Your task to perform on an android device: Do I have any events this weekend? Image 0: 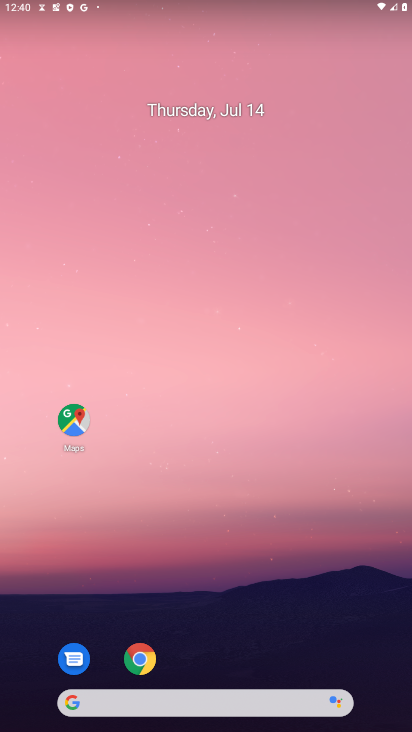
Step 0: click (112, 702)
Your task to perform on an android device: Do I have any events this weekend? Image 1: 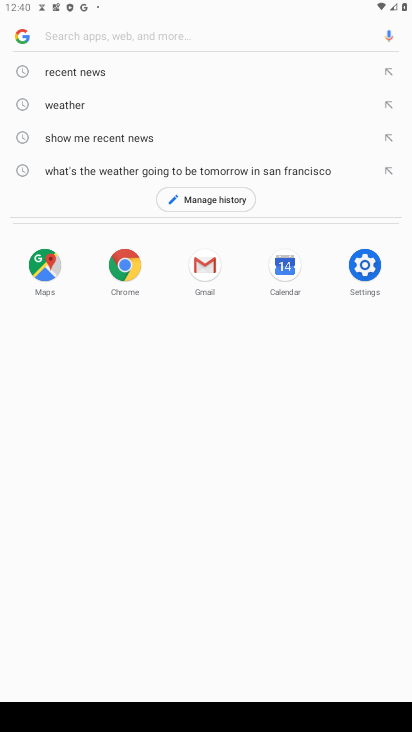
Step 1: type "Do I have any events this weekend?"
Your task to perform on an android device: Do I have any events this weekend? Image 2: 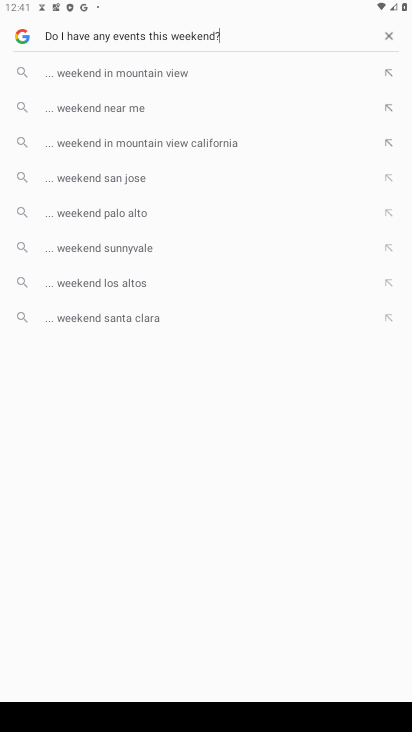
Step 2: type ""
Your task to perform on an android device: Do I have any events this weekend? Image 3: 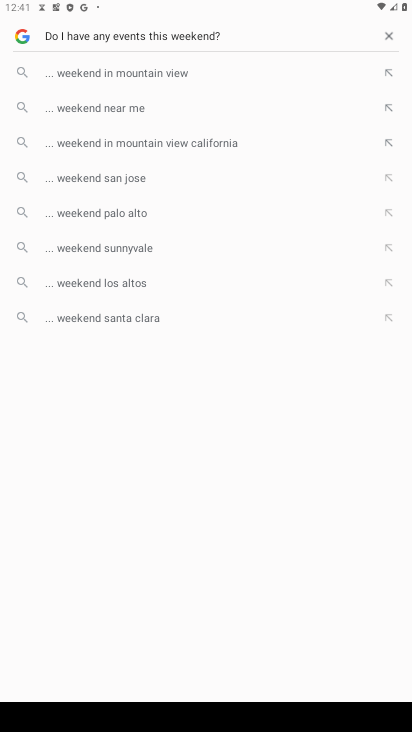
Step 3: type ""
Your task to perform on an android device: Do I have any events this weekend? Image 4: 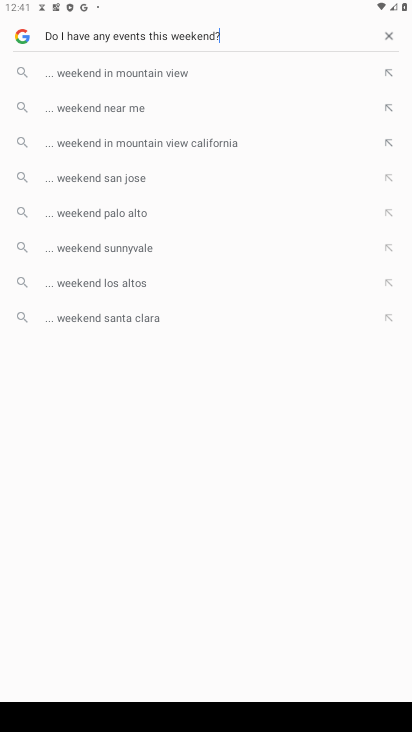
Step 4: task complete